Your task to perform on an android device: turn off notifications in google photos Image 0: 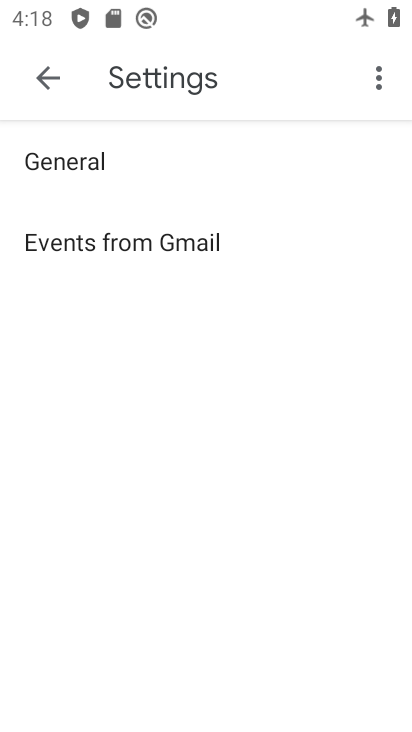
Step 0: press back button
Your task to perform on an android device: turn off notifications in google photos Image 1: 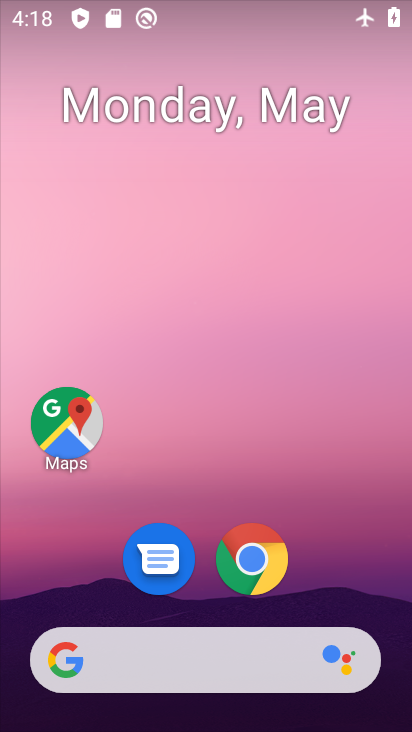
Step 1: drag from (352, 549) to (201, 21)
Your task to perform on an android device: turn off notifications in google photos Image 2: 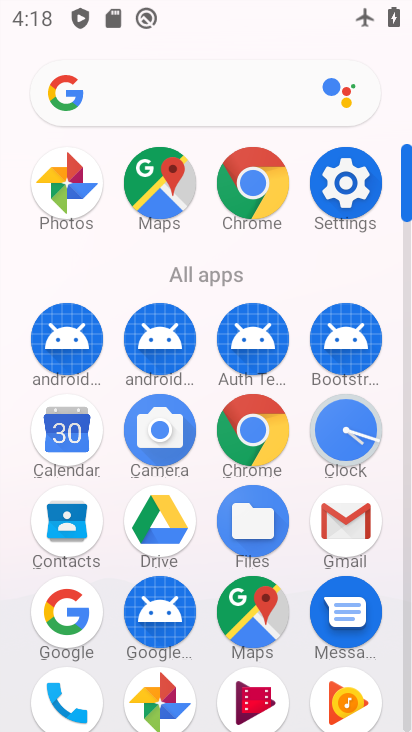
Step 2: drag from (6, 559) to (0, 245)
Your task to perform on an android device: turn off notifications in google photos Image 3: 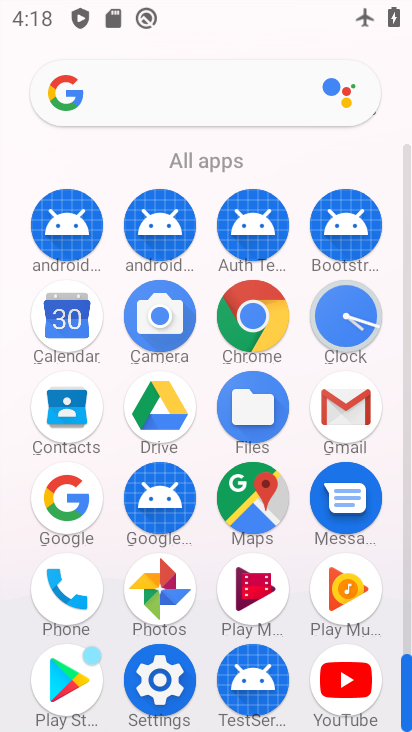
Step 3: click (155, 583)
Your task to perform on an android device: turn off notifications in google photos Image 4: 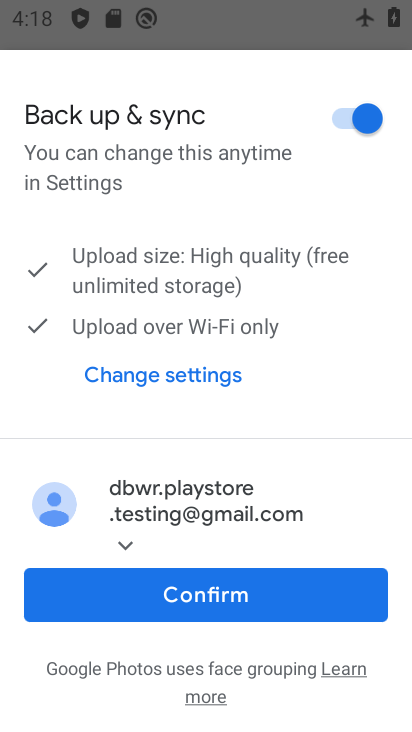
Step 4: click (205, 588)
Your task to perform on an android device: turn off notifications in google photos Image 5: 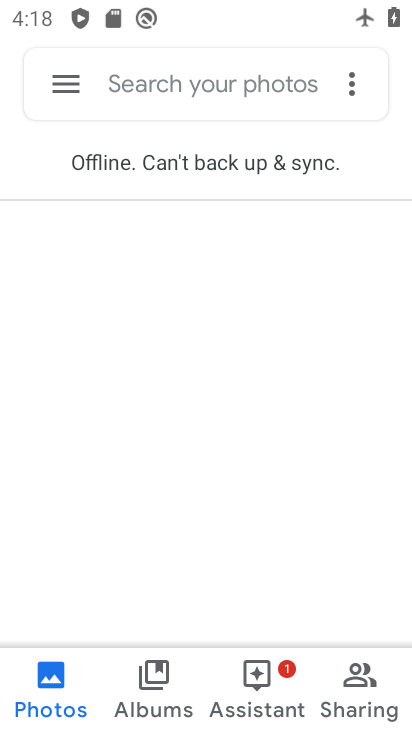
Step 5: click (59, 86)
Your task to perform on an android device: turn off notifications in google photos Image 6: 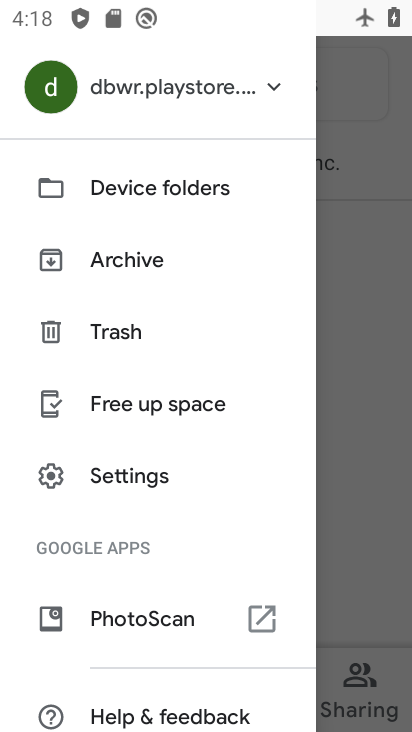
Step 6: click (116, 461)
Your task to perform on an android device: turn off notifications in google photos Image 7: 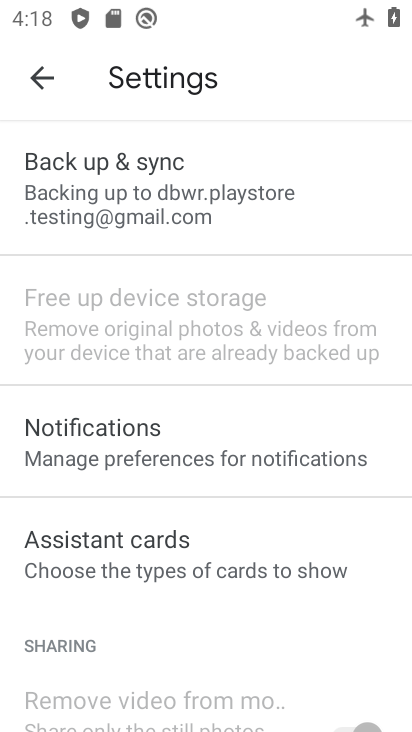
Step 7: click (183, 433)
Your task to perform on an android device: turn off notifications in google photos Image 8: 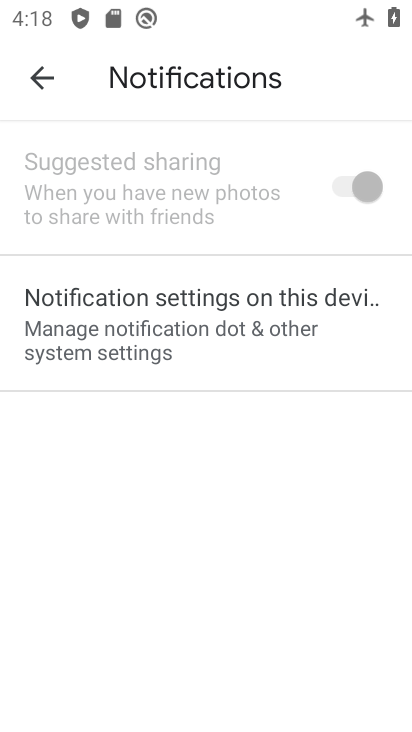
Step 8: click (268, 315)
Your task to perform on an android device: turn off notifications in google photos Image 9: 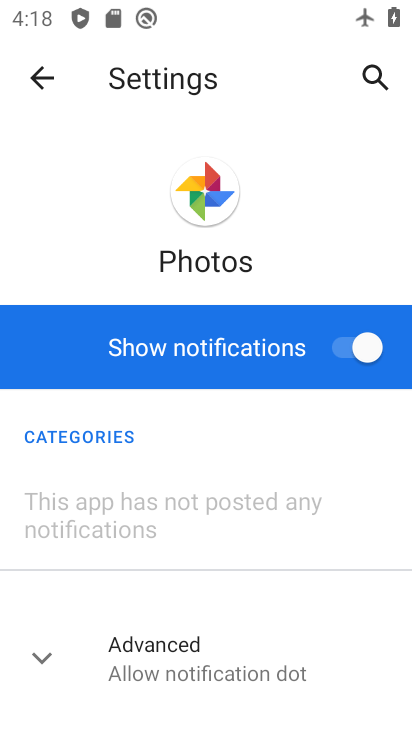
Step 9: click (353, 356)
Your task to perform on an android device: turn off notifications in google photos Image 10: 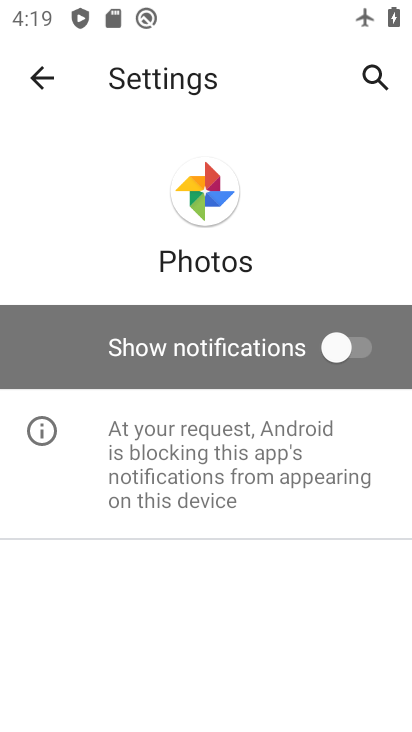
Step 10: task complete